Your task to perform on an android device: delete a single message in the gmail app Image 0: 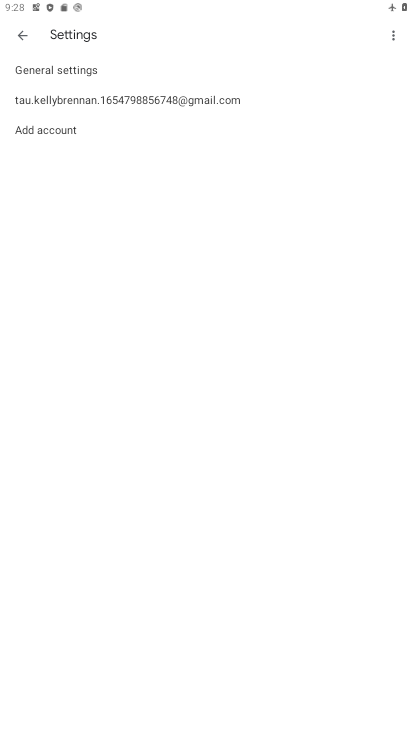
Step 0: press home button
Your task to perform on an android device: delete a single message in the gmail app Image 1: 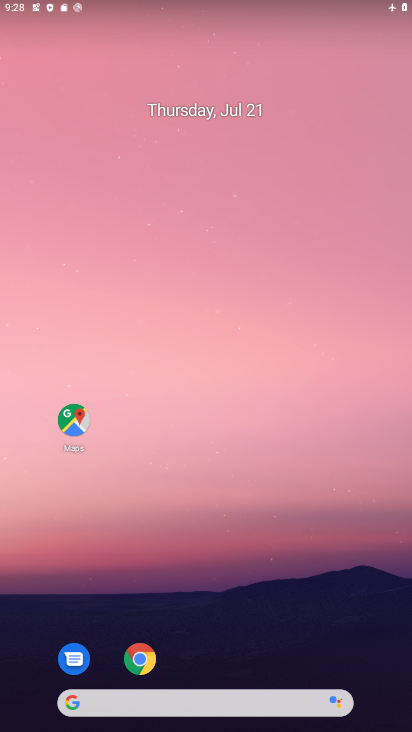
Step 1: drag from (188, 649) to (106, 2)
Your task to perform on an android device: delete a single message in the gmail app Image 2: 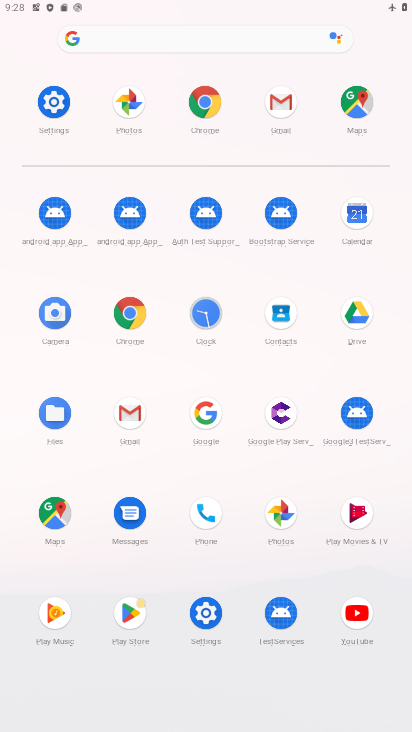
Step 2: click (127, 441)
Your task to perform on an android device: delete a single message in the gmail app Image 3: 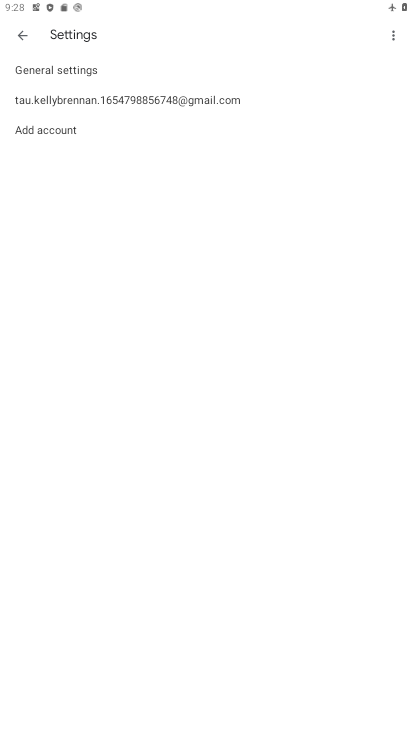
Step 3: click (0, 41)
Your task to perform on an android device: delete a single message in the gmail app Image 4: 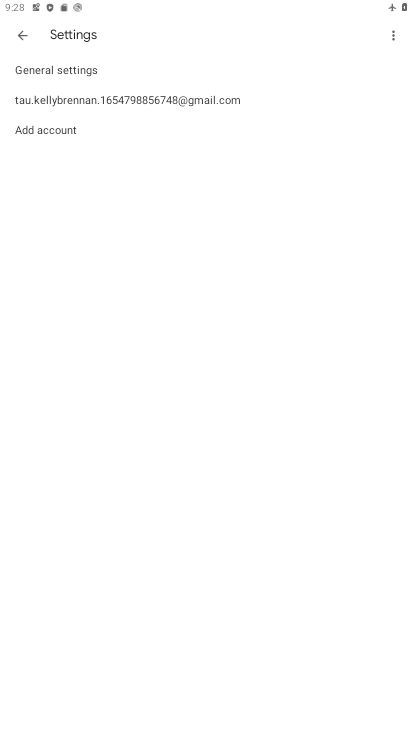
Step 4: click (30, 35)
Your task to perform on an android device: delete a single message in the gmail app Image 5: 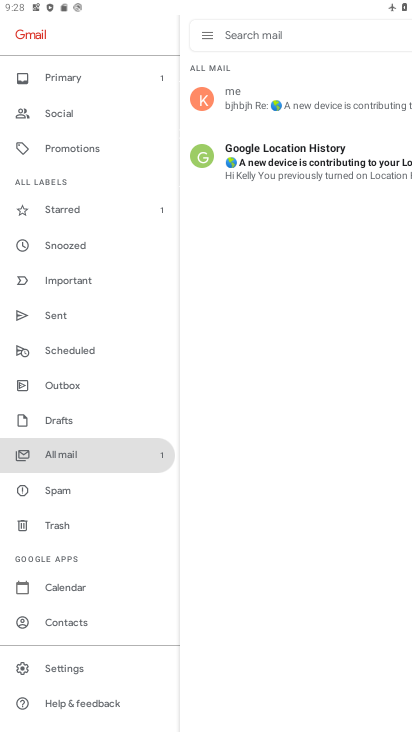
Step 5: click (288, 173)
Your task to perform on an android device: delete a single message in the gmail app Image 6: 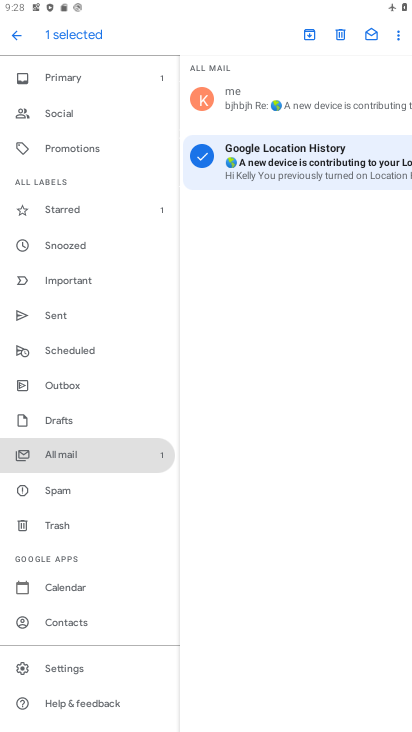
Step 6: click (337, 43)
Your task to perform on an android device: delete a single message in the gmail app Image 7: 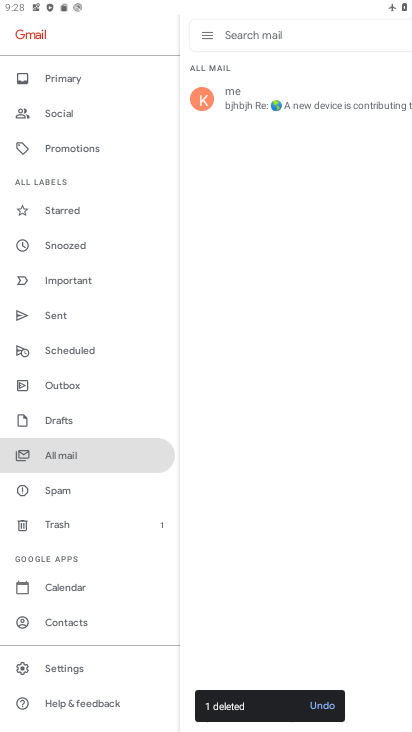
Step 7: task complete